Your task to perform on an android device: open chrome privacy settings Image 0: 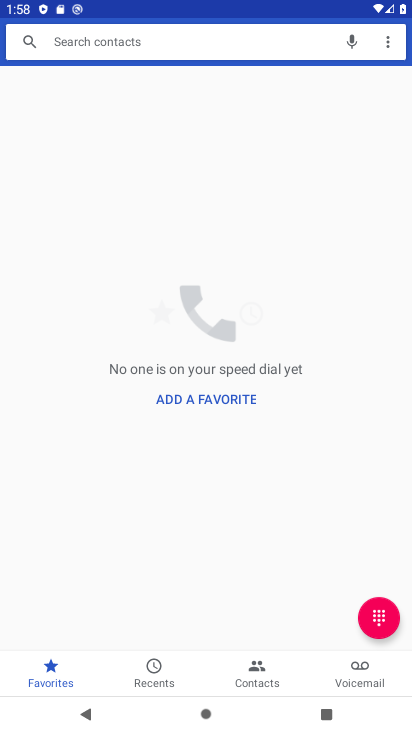
Step 0: press home button
Your task to perform on an android device: open chrome privacy settings Image 1: 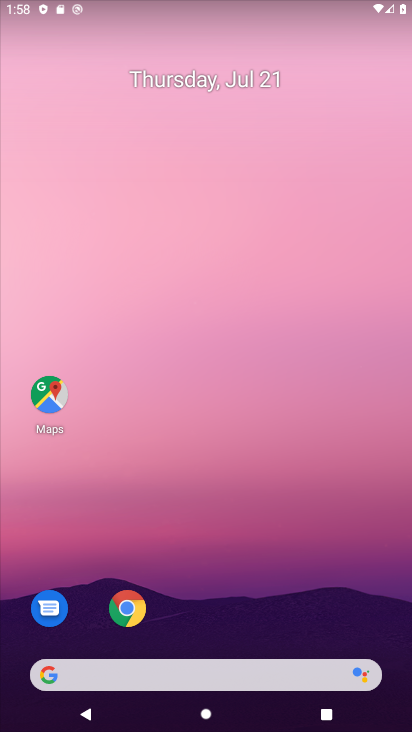
Step 1: click (131, 607)
Your task to perform on an android device: open chrome privacy settings Image 2: 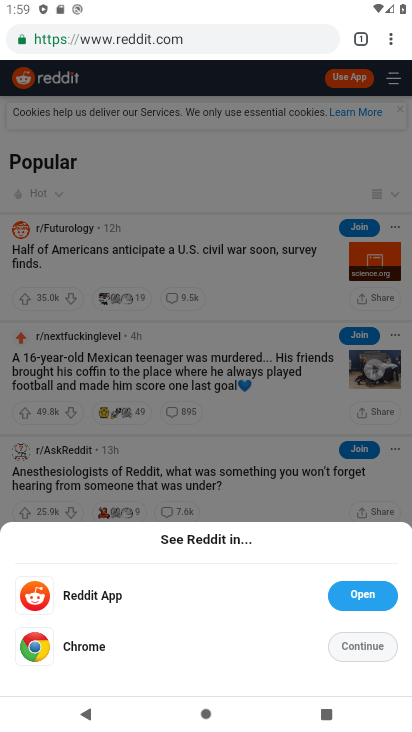
Step 2: click (392, 34)
Your task to perform on an android device: open chrome privacy settings Image 3: 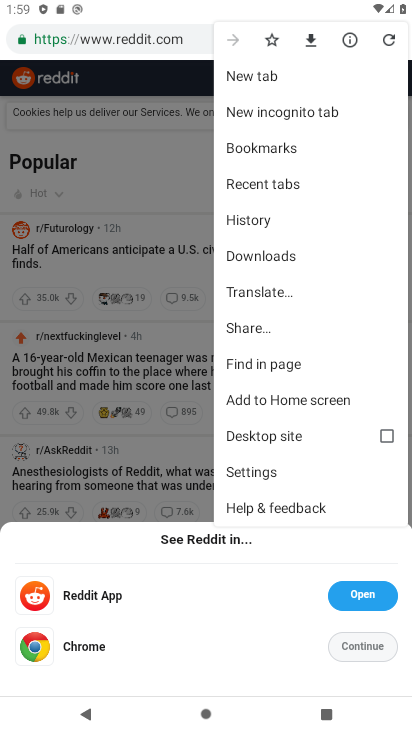
Step 3: click (257, 473)
Your task to perform on an android device: open chrome privacy settings Image 4: 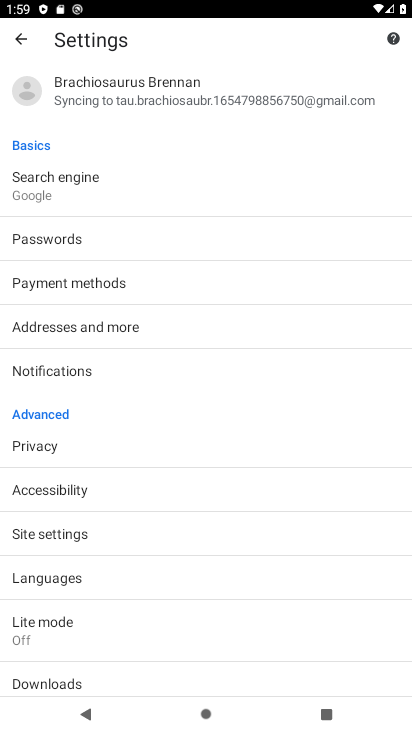
Step 4: click (49, 444)
Your task to perform on an android device: open chrome privacy settings Image 5: 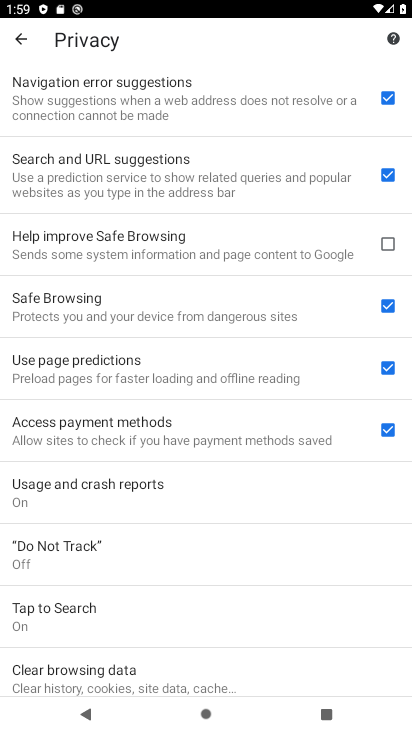
Step 5: task complete